Your task to perform on an android device: Go to privacy settings Image 0: 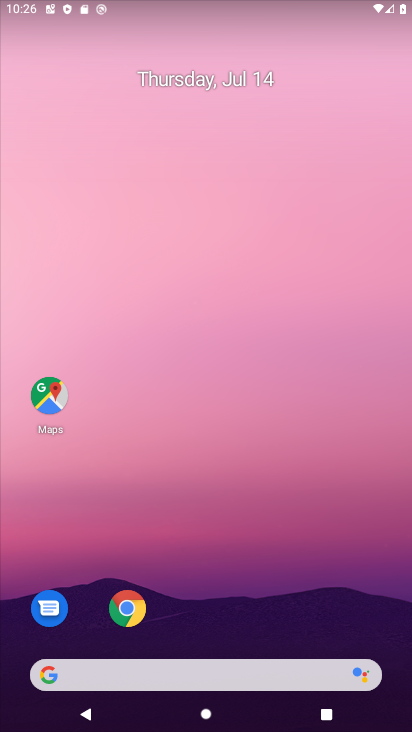
Step 0: drag from (243, 729) to (231, 203)
Your task to perform on an android device: Go to privacy settings Image 1: 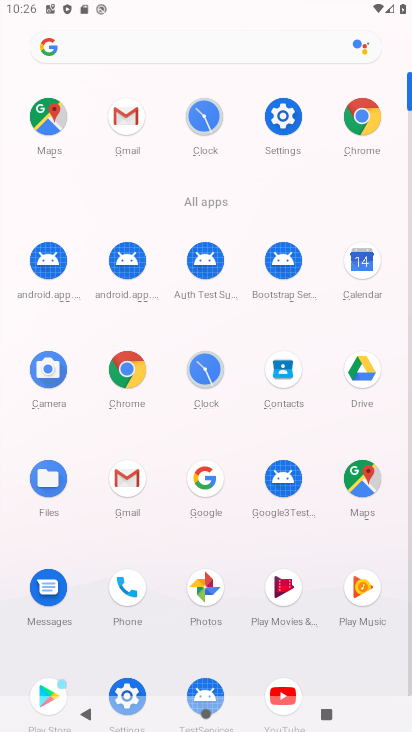
Step 1: click (279, 108)
Your task to perform on an android device: Go to privacy settings Image 2: 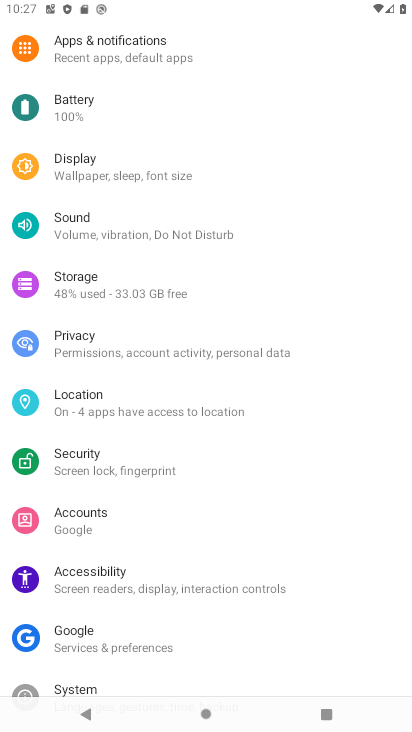
Step 2: click (63, 344)
Your task to perform on an android device: Go to privacy settings Image 3: 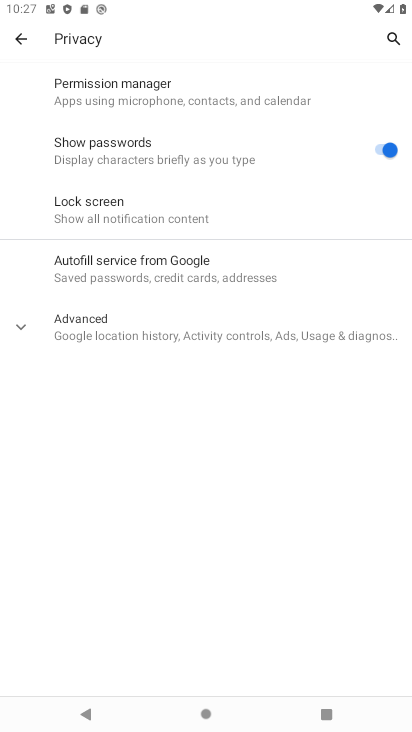
Step 3: task complete